Your task to perform on an android device: Open CNN.com Image 0: 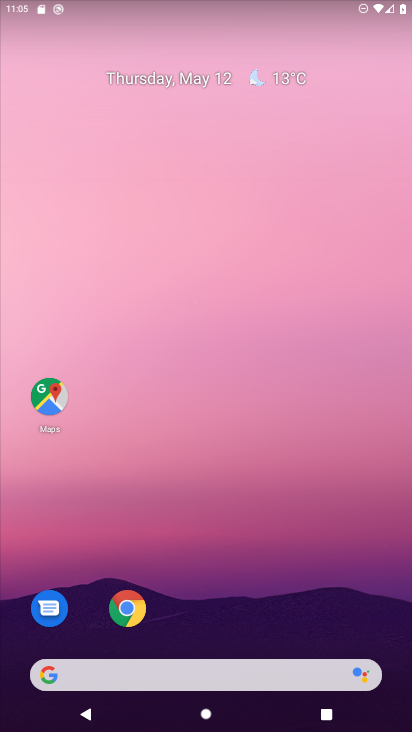
Step 0: drag from (259, 636) to (201, 124)
Your task to perform on an android device: Open CNN.com Image 1: 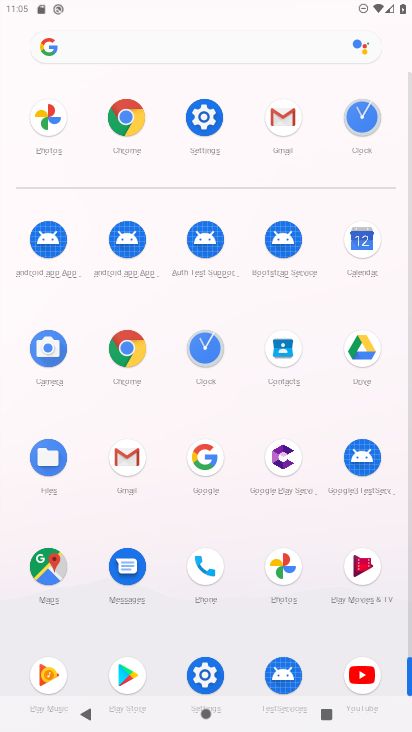
Step 1: click (205, 463)
Your task to perform on an android device: Open CNN.com Image 2: 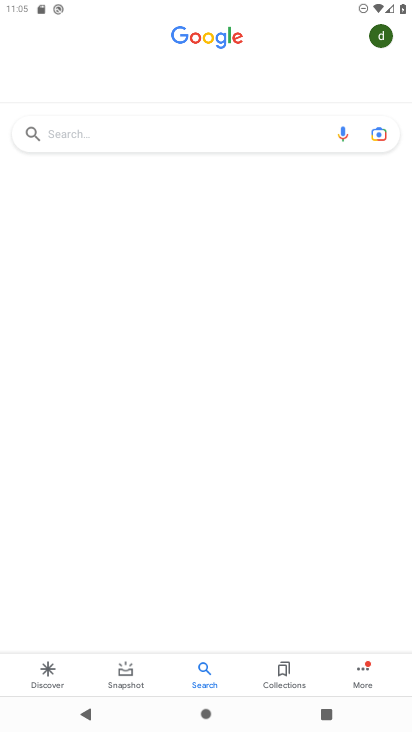
Step 2: click (117, 124)
Your task to perform on an android device: Open CNN.com Image 3: 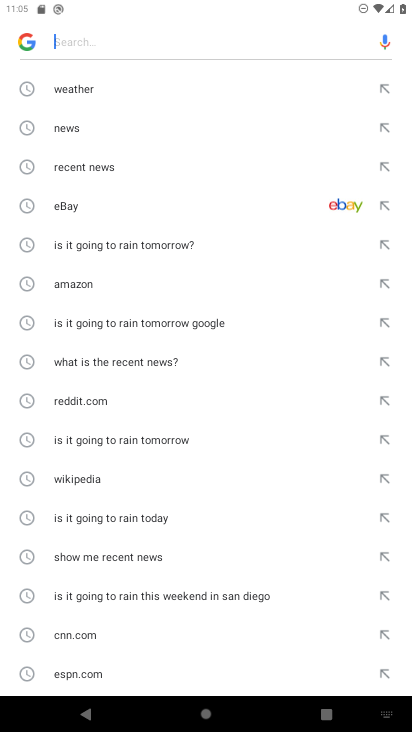
Step 3: click (80, 635)
Your task to perform on an android device: Open CNN.com Image 4: 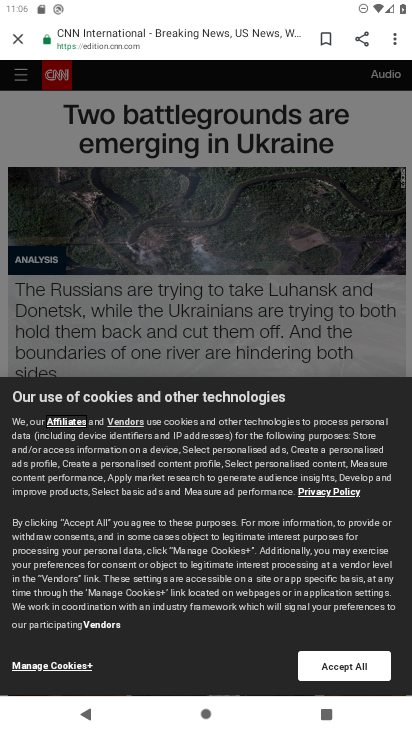
Step 4: task complete